Your task to perform on an android device: Go to privacy settings Image 0: 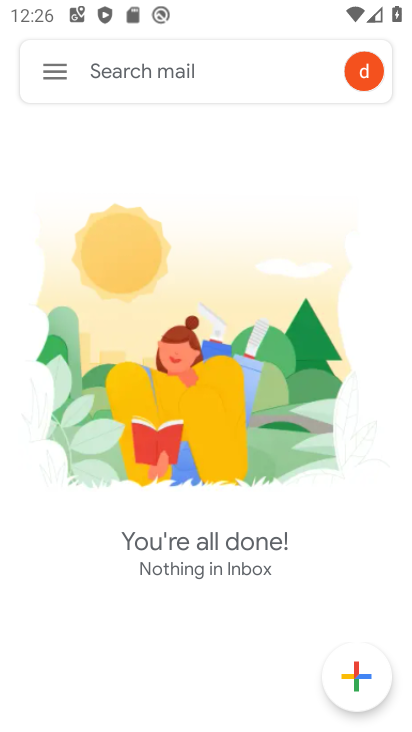
Step 0: press home button
Your task to perform on an android device: Go to privacy settings Image 1: 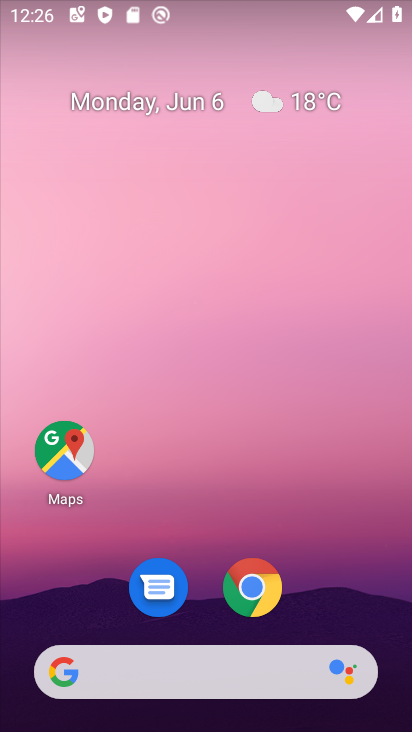
Step 1: drag from (346, 577) to (328, 117)
Your task to perform on an android device: Go to privacy settings Image 2: 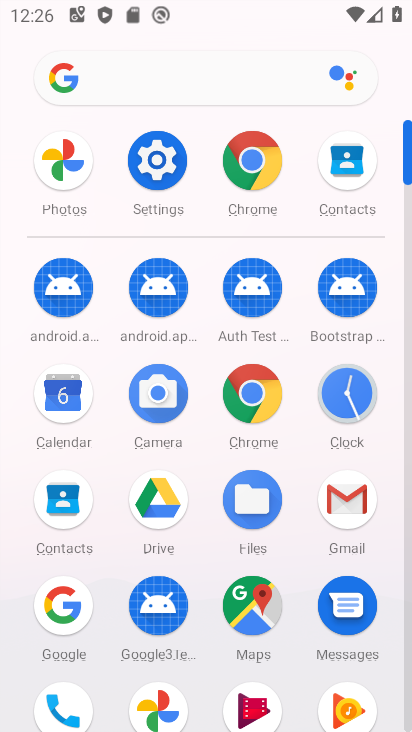
Step 2: click (155, 174)
Your task to perform on an android device: Go to privacy settings Image 3: 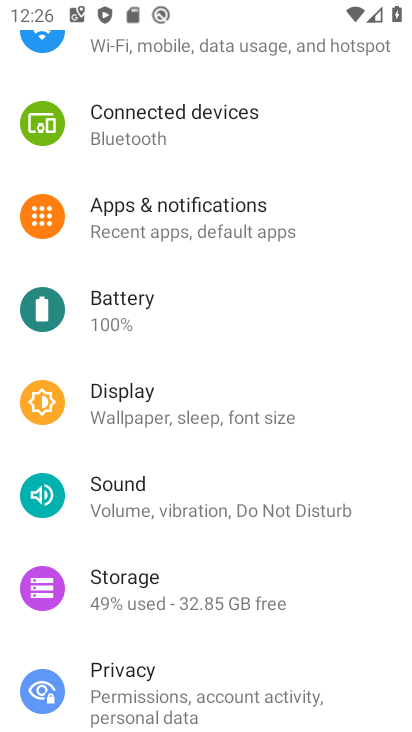
Step 3: click (172, 687)
Your task to perform on an android device: Go to privacy settings Image 4: 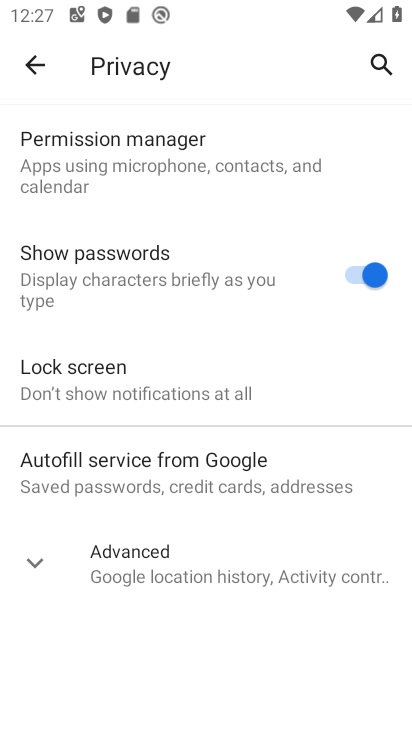
Step 4: task complete